Your task to perform on an android device: delete a single message in the gmail app Image 0: 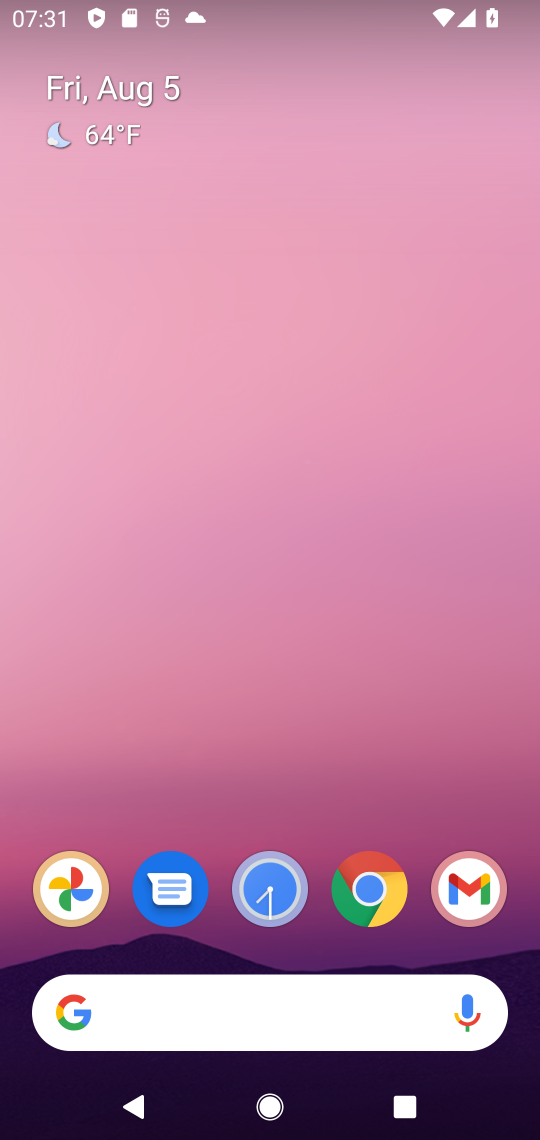
Step 0: click (475, 892)
Your task to perform on an android device: delete a single message in the gmail app Image 1: 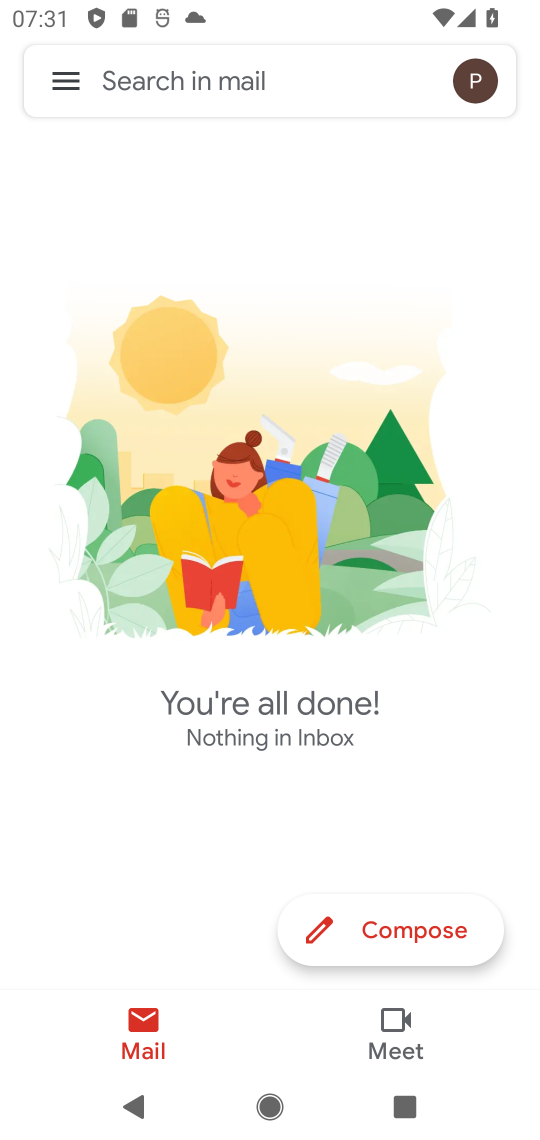
Step 1: click (70, 73)
Your task to perform on an android device: delete a single message in the gmail app Image 2: 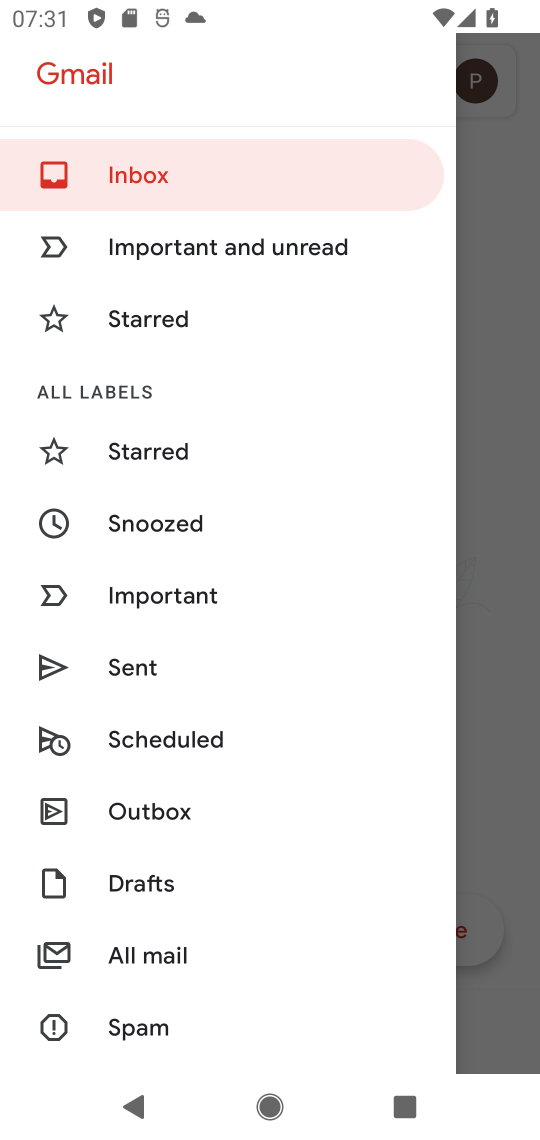
Step 2: task complete